Your task to perform on an android device: change keyboard looks Image 0: 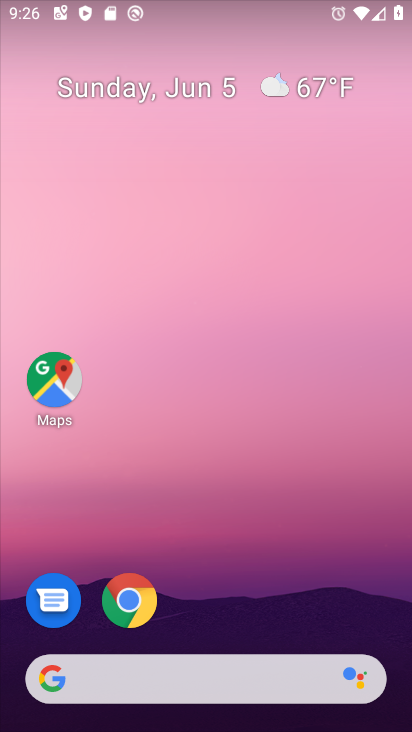
Step 0: drag from (333, 600) to (304, 27)
Your task to perform on an android device: change keyboard looks Image 1: 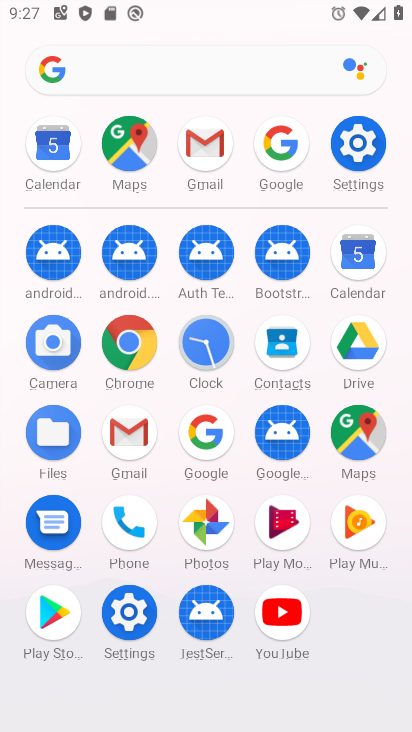
Step 1: click (146, 613)
Your task to perform on an android device: change keyboard looks Image 2: 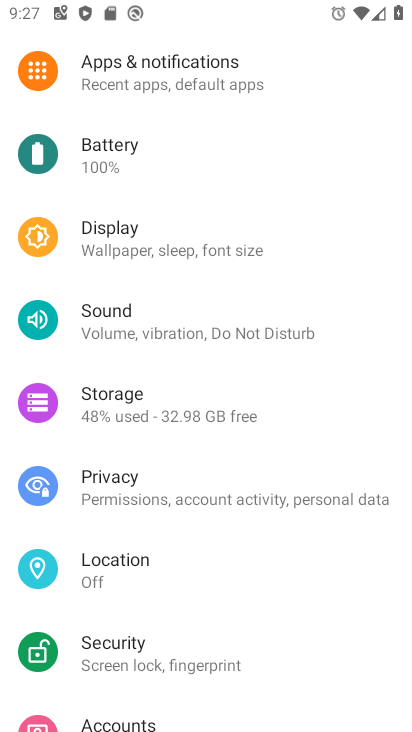
Step 2: drag from (240, 259) to (281, 3)
Your task to perform on an android device: change keyboard looks Image 3: 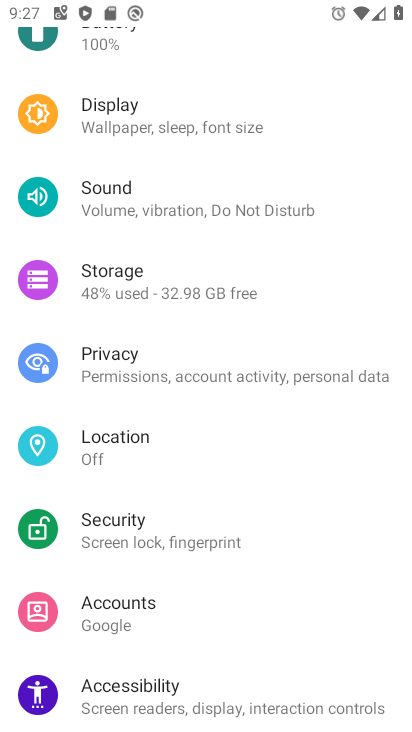
Step 3: drag from (147, 676) to (141, 214)
Your task to perform on an android device: change keyboard looks Image 4: 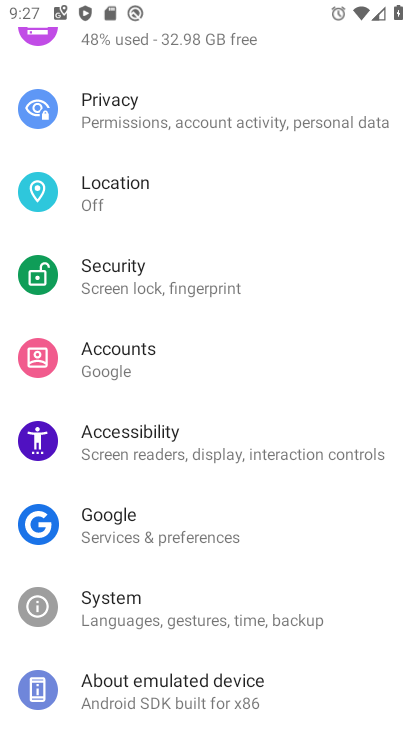
Step 4: click (172, 602)
Your task to perform on an android device: change keyboard looks Image 5: 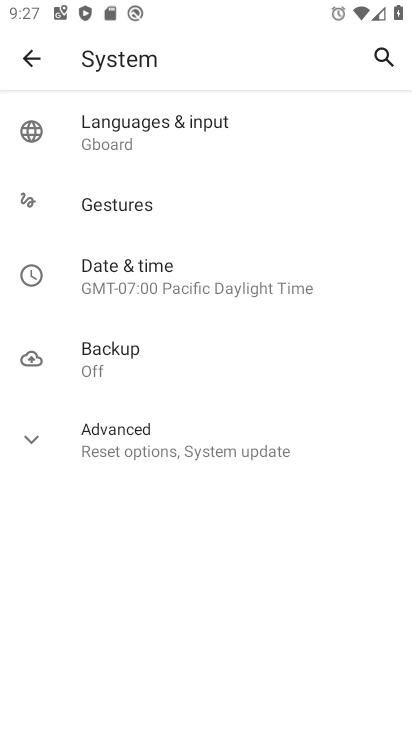
Step 5: click (174, 139)
Your task to perform on an android device: change keyboard looks Image 6: 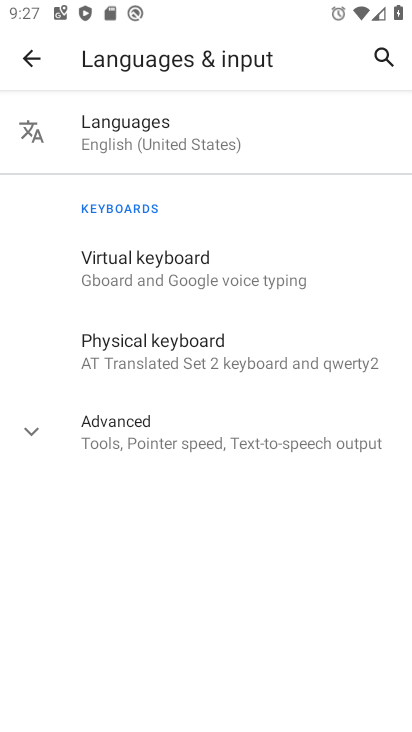
Step 6: click (138, 262)
Your task to perform on an android device: change keyboard looks Image 7: 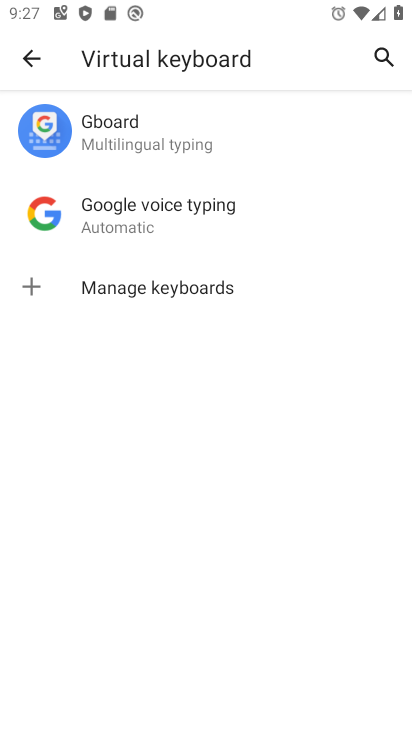
Step 7: click (158, 149)
Your task to perform on an android device: change keyboard looks Image 8: 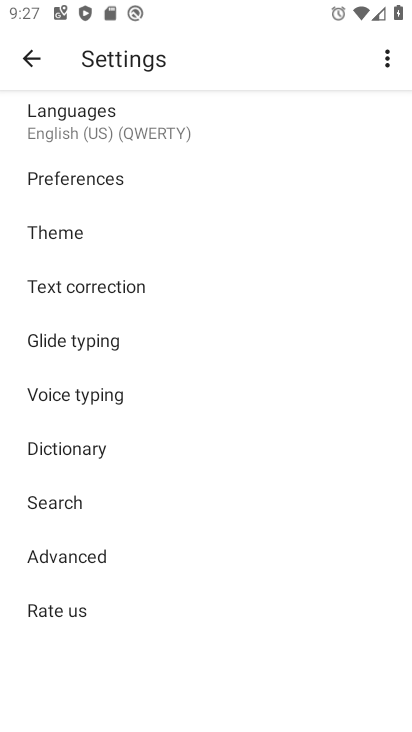
Step 8: click (66, 222)
Your task to perform on an android device: change keyboard looks Image 9: 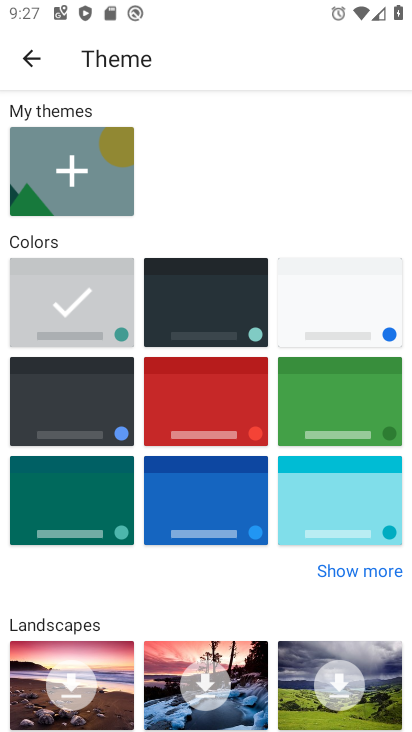
Step 9: click (326, 305)
Your task to perform on an android device: change keyboard looks Image 10: 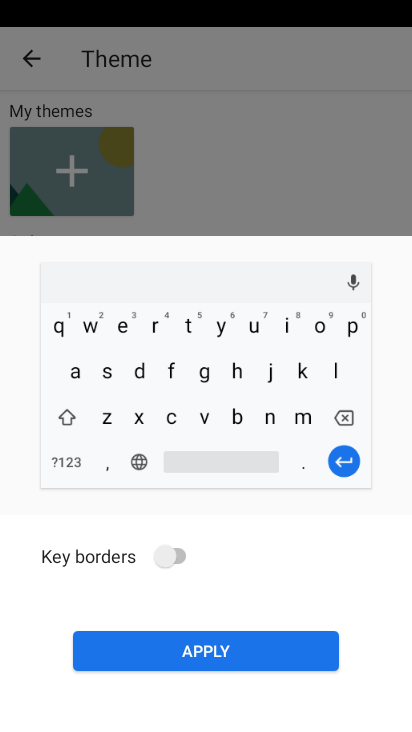
Step 10: click (224, 656)
Your task to perform on an android device: change keyboard looks Image 11: 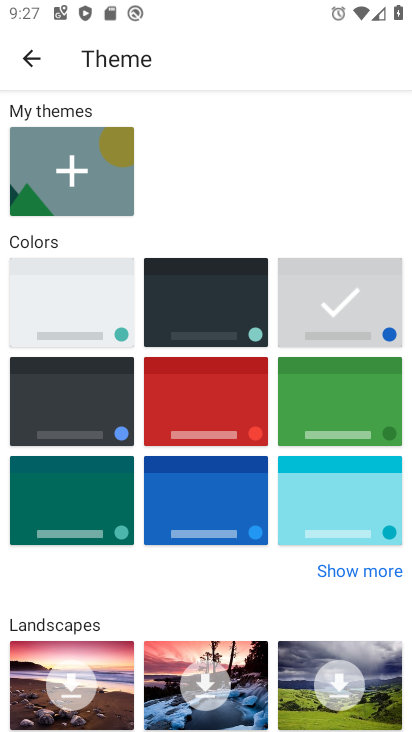
Step 11: task complete